Your task to perform on an android device: Empty the shopping cart on ebay. Add panasonic triple a to the cart on ebay, then select checkout. Image 0: 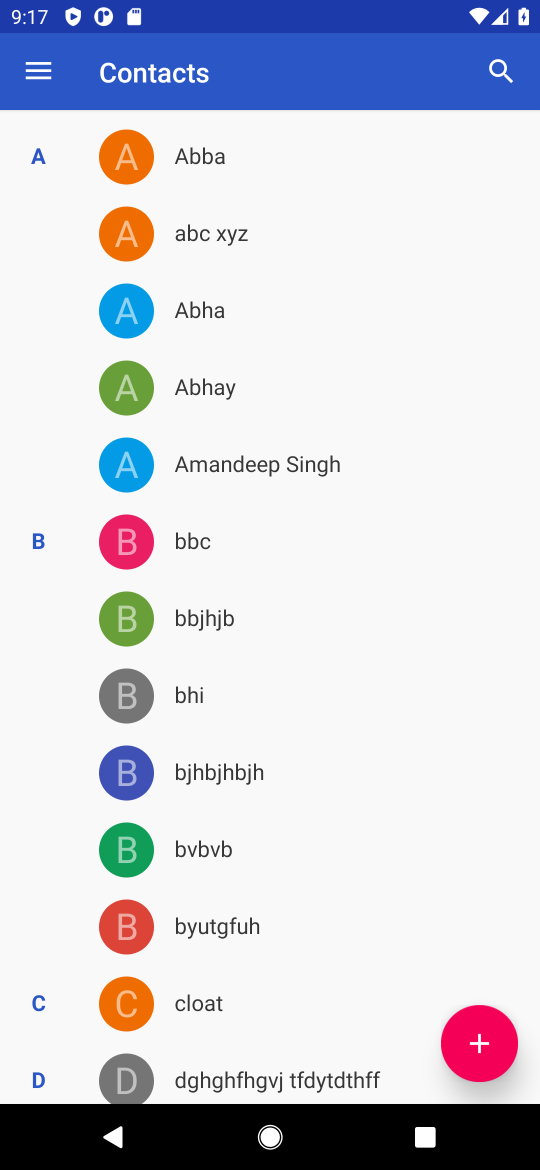
Step 0: press home button
Your task to perform on an android device: Empty the shopping cart on ebay. Add panasonic triple a to the cart on ebay, then select checkout. Image 1: 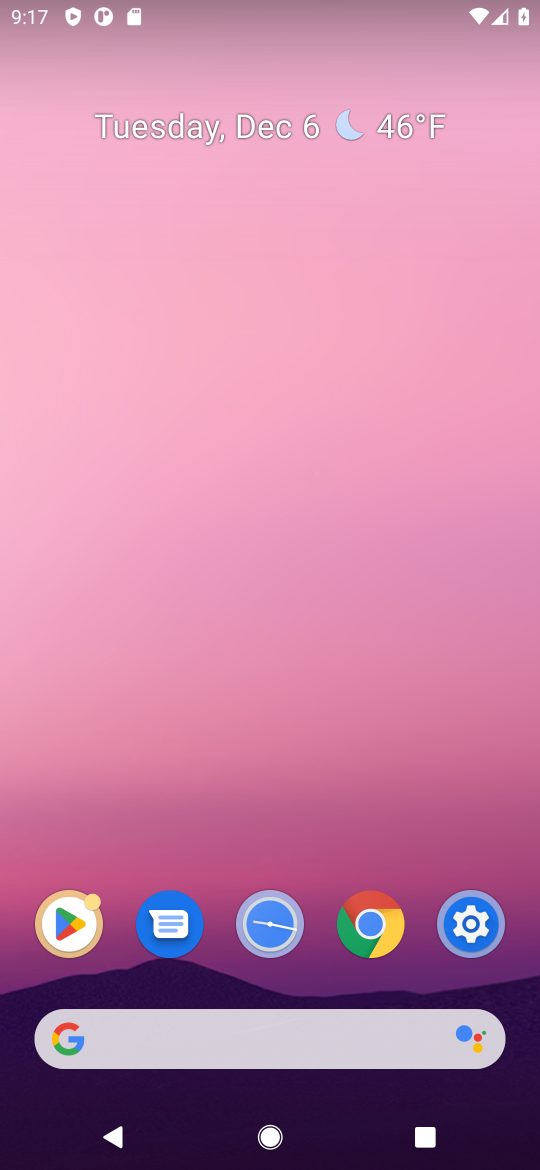
Step 1: click (333, 1061)
Your task to perform on an android device: Empty the shopping cart on ebay. Add panasonic triple a to the cart on ebay, then select checkout. Image 2: 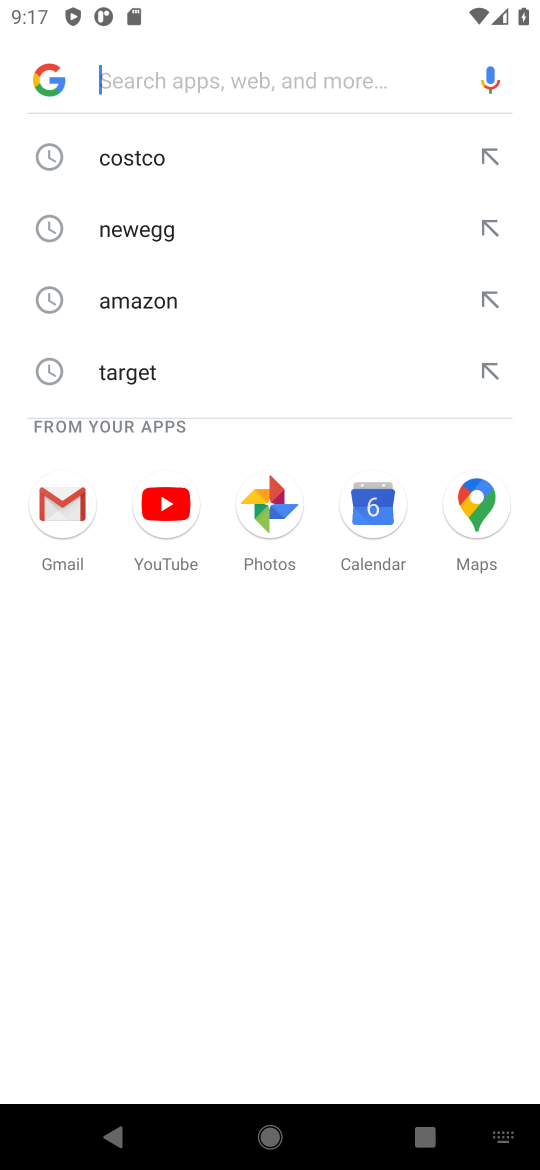
Step 2: type "ebay"
Your task to perform on an android device: Empty the shopping cart on ebay. Add panasonic triple a to the cart on ebay, then select checkout. Image 3: 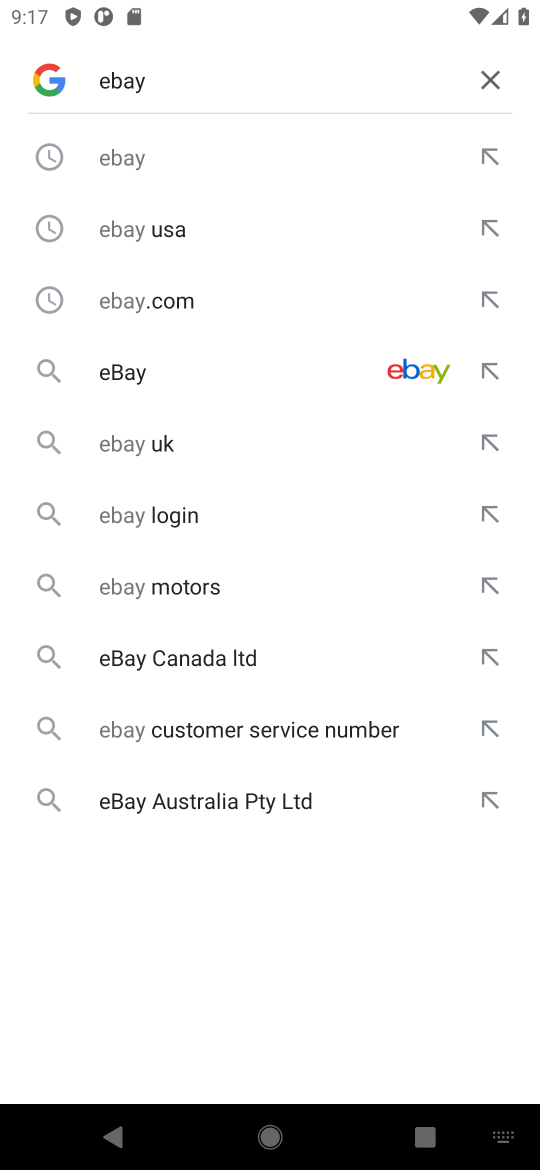
Step 3: click (253, 375)
Your task to perform on an android device: Empty the shopping cart on ebay. Add panasonic triple a to the cart on ebay, then select checkout. Image 4: 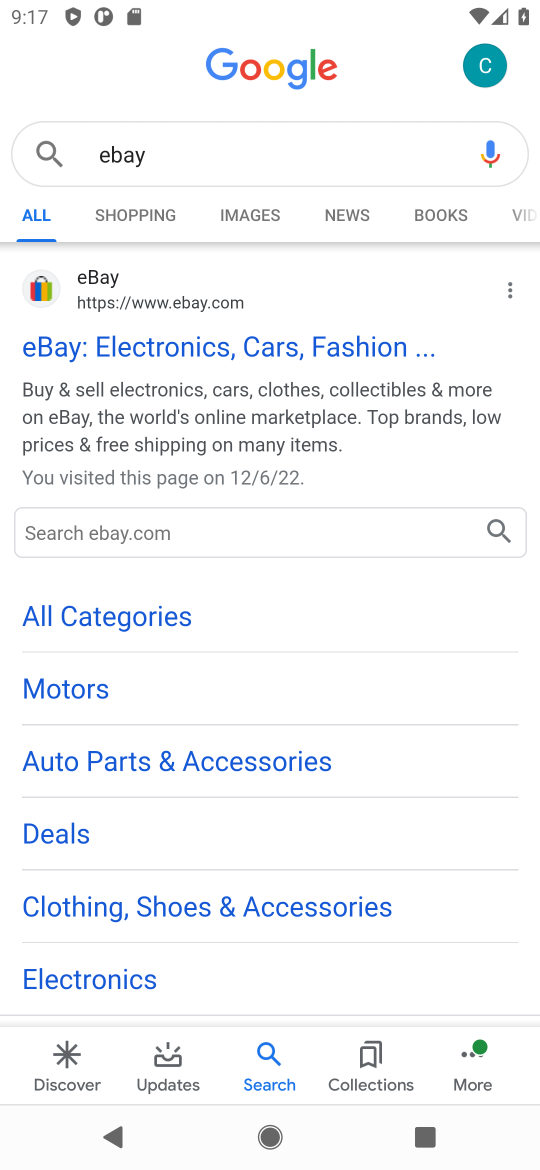
Step 4: click (151, 337)
Your task to perform on an android device: Empty the shopping cart on ebay. Add panasonic triple a to the cart on ebay, then select checkout. Image 5: 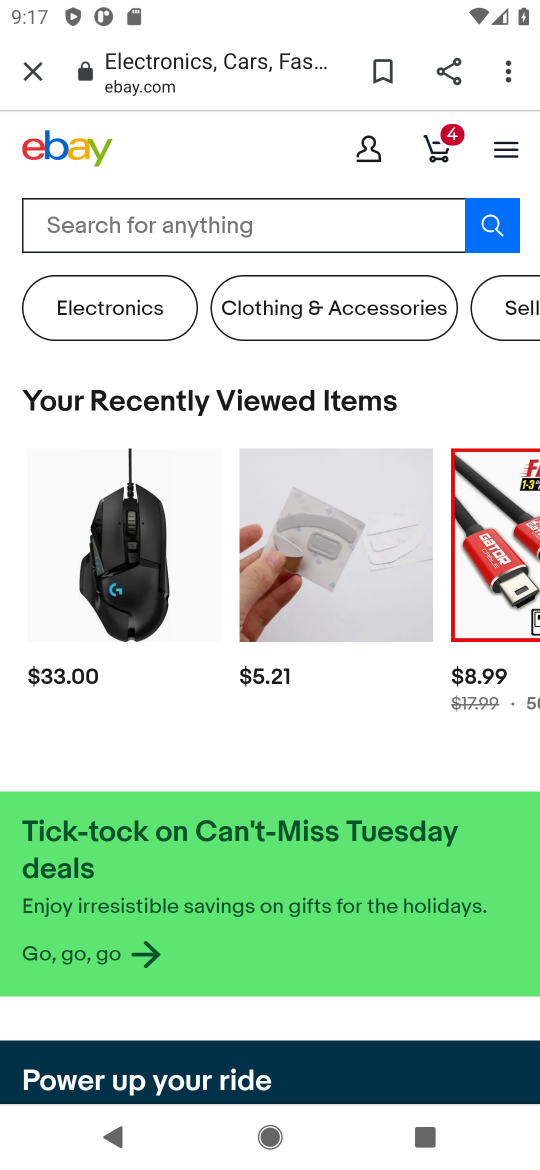
Step 5: task complete